Your task to perform on an android device: turn on showing notifications on the lock screen Image 0: 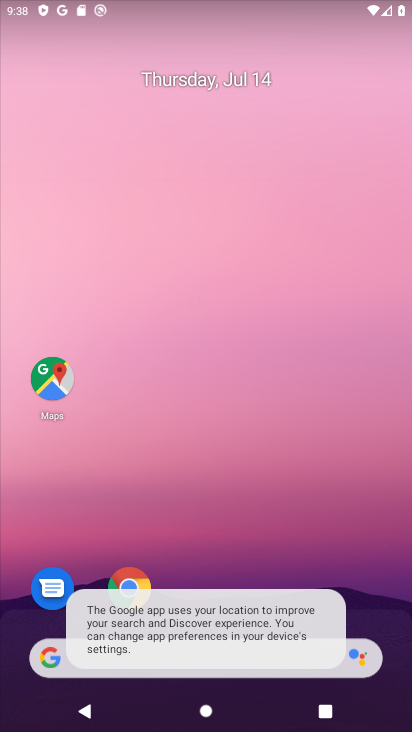
Step 0: press home button
Your task to perform on an android device: turn on showing notifications on the lock screen Image 1: 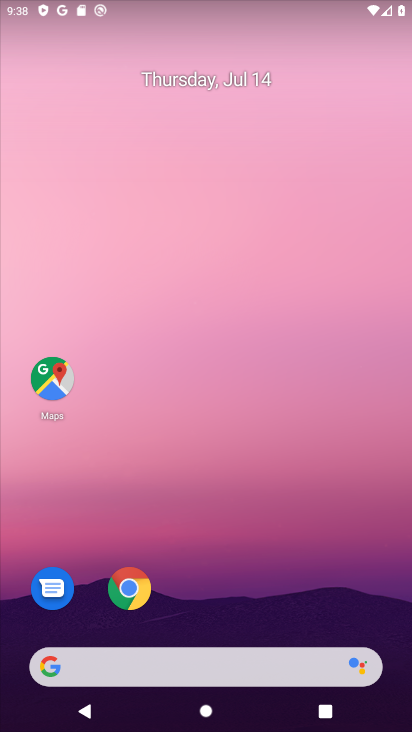
Step 1: drag from (246, 664) to (355, 113)
Your task to perform on an android device: turn on showing notifications on the lock screen Image 2: 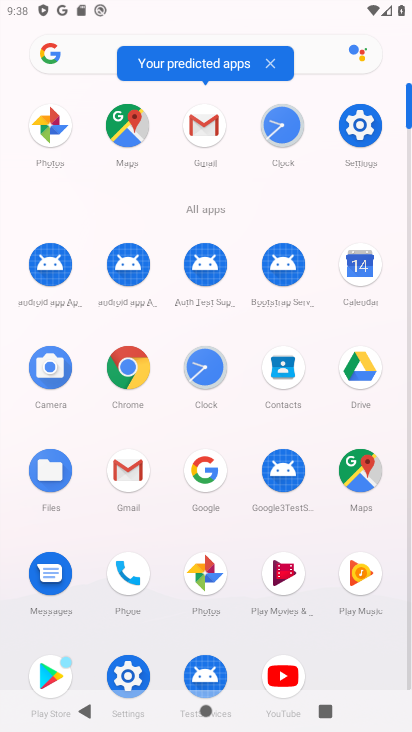
Step 2: click (364, 131)
Your task to perform on an android device: turn on showing notifications on the lock screen Image 3: 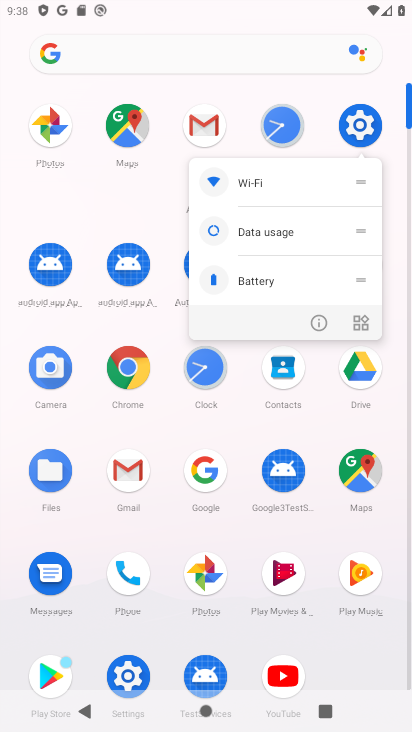
Step 3: click (363, 127)
Your task to perform on an android device: turn on showing notifications on the lock screen Image 4: 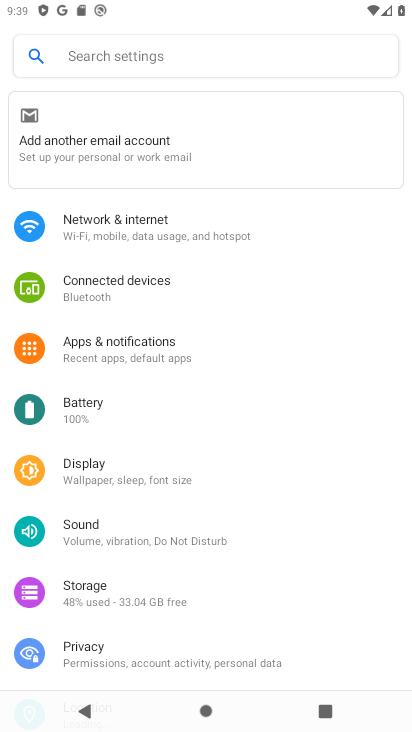
Step 4: click (127, 343)
Your task to perform on an android device: turn on showing notifications on the lock screen Image 5: 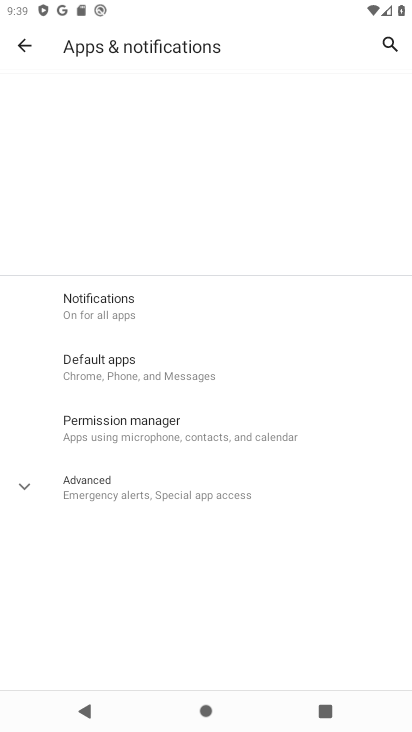
Step 5: click (104, 307)
Your task to perform on an android device: turn on showing notifications on the lock screen Image 6: 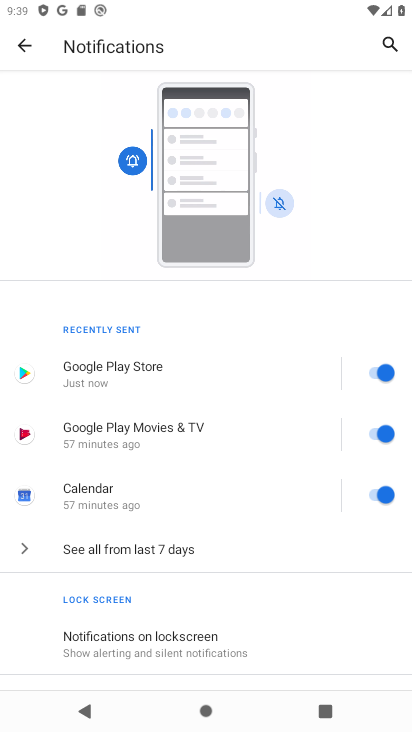
Step 6: click (193, 640)
Your task to perform on an android device: turn on showing notifications on the lock screen Image 7: 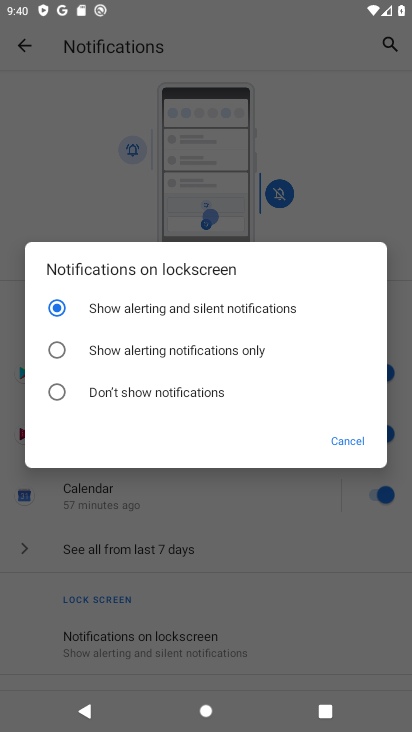
Step 7: task complete